Your task to perform on an android device: toggle priority inbox in the gmail app Image 0: 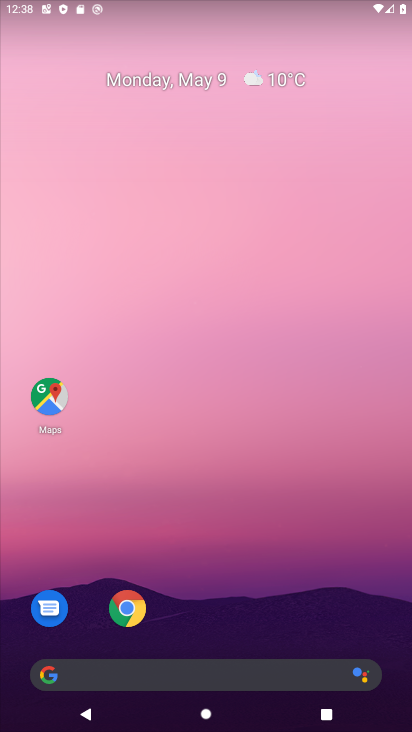
Step 0: drag from (236, 387) to (227, 148)
Your task to perform on an android device: toggle priority inbox in the gmail app Image 1: 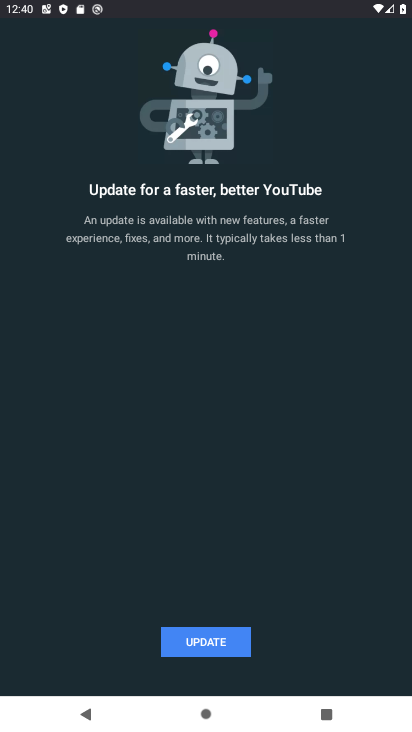
Step 1: press back button
Your task to perform on an android device: toggle priority inbox in the gmail app Image 2: 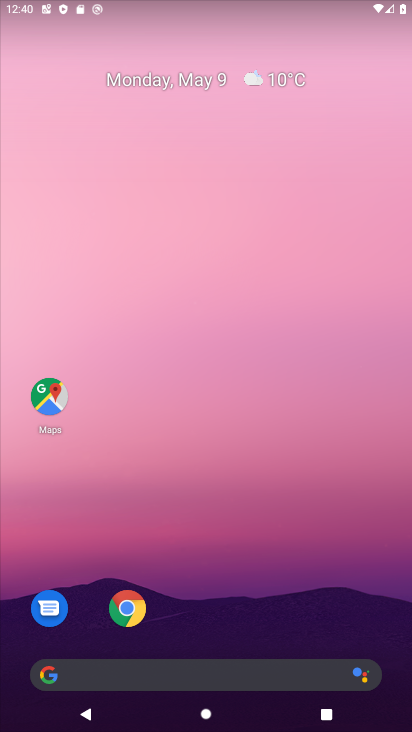
Step 2: drag from (294, 607) to (325, 108)
Your task to perform on an android device: toggle priority inbox in the gmail app Image 3: 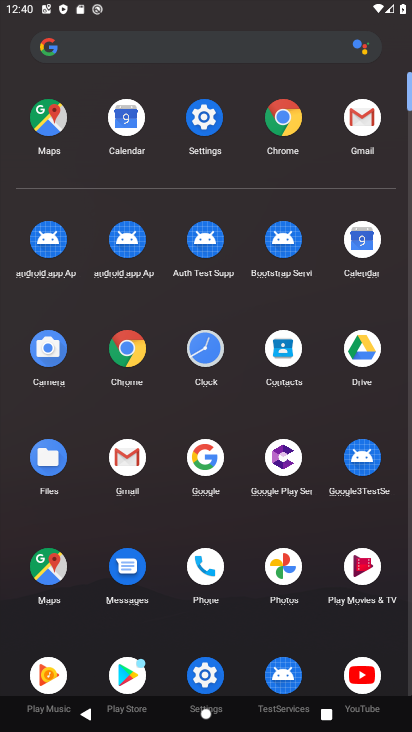
Step 3: click (123, 473)
Your task to perform on an android device: toggle priority inbox in the gmail app Image 4: 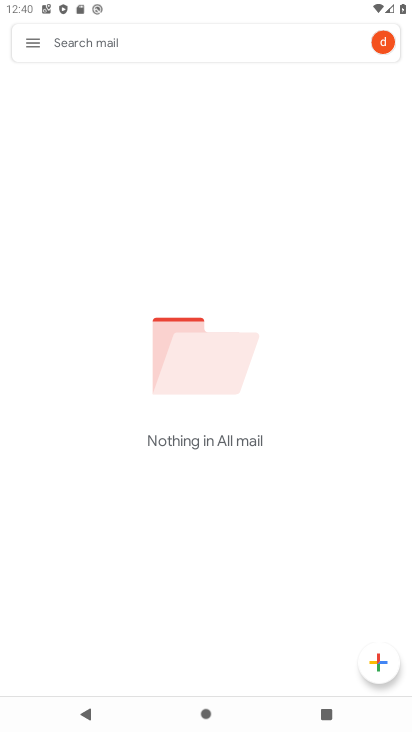
Step 4: click (34, 46)
Your task to perform on an android device: toggle priority inbox in the gmail app Image 5: 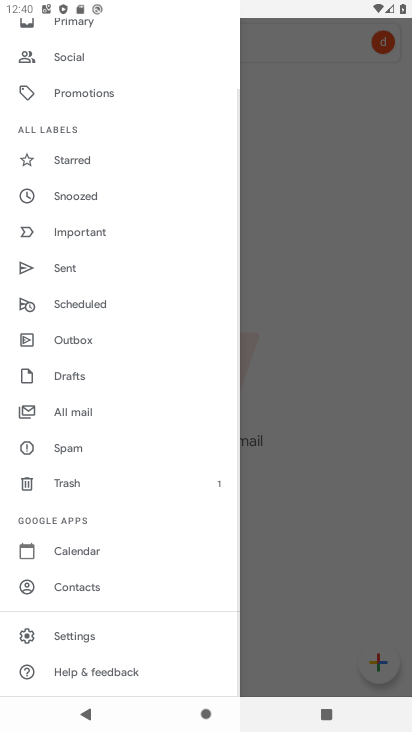
Step 5: click (72, 635)
Your task to perform on an android device: toggle priority inbox in the gmail app Image 6: 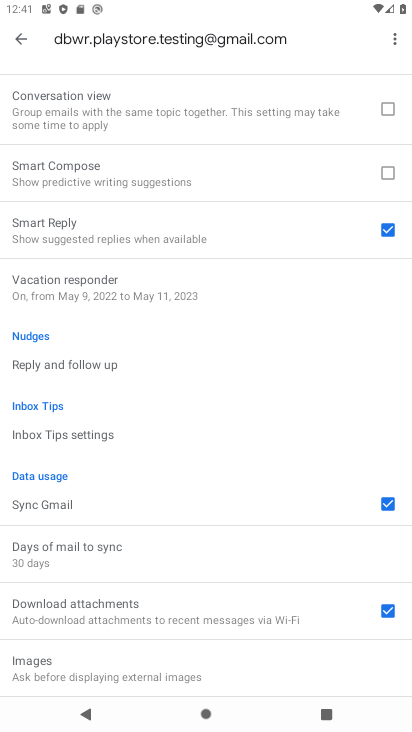
Step 6: click (144, 437)
Your task to perform on an android device: toggle priority inbox in the gmail app Image 7: 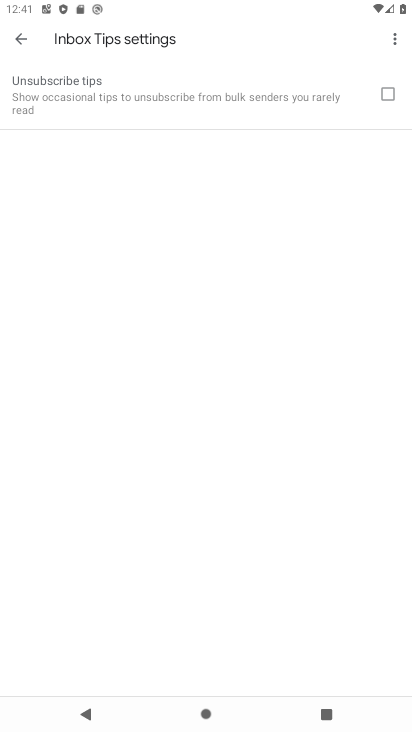
Step 7: click (20, 36)
Your task to perform on an android device: toggle priority inbox in the gmail app Image 8: 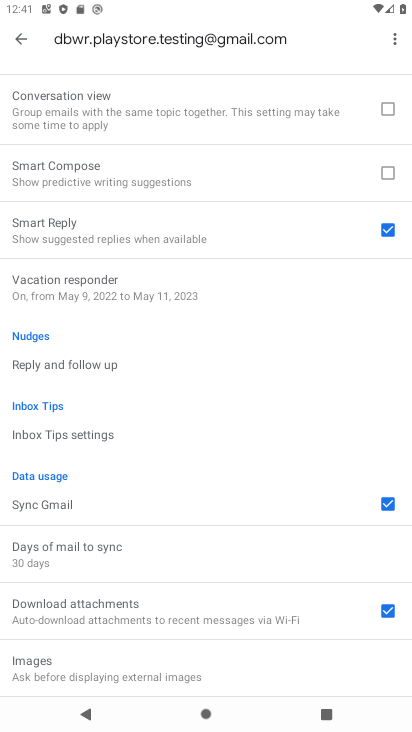
Step 8: drag from (115, 213) to (88, 555)
Your task to perform on an android device: toggle priority inbox in the gmail app Image 9: 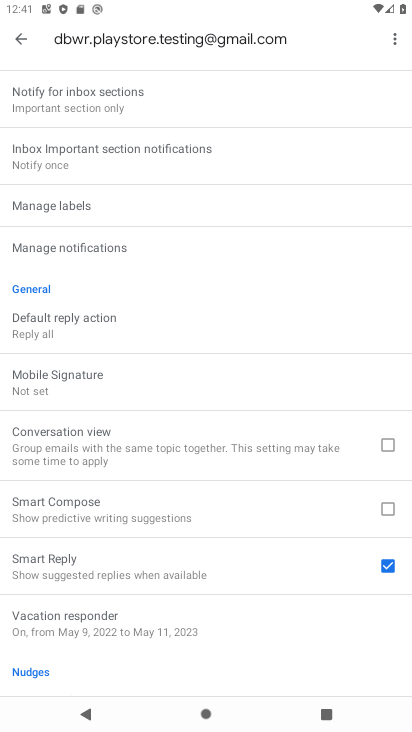
Step 9: drag from (170, 128) to (159, 563)
Your task to perform on an android device: toggle priority inbox in the gmail app Image 10: 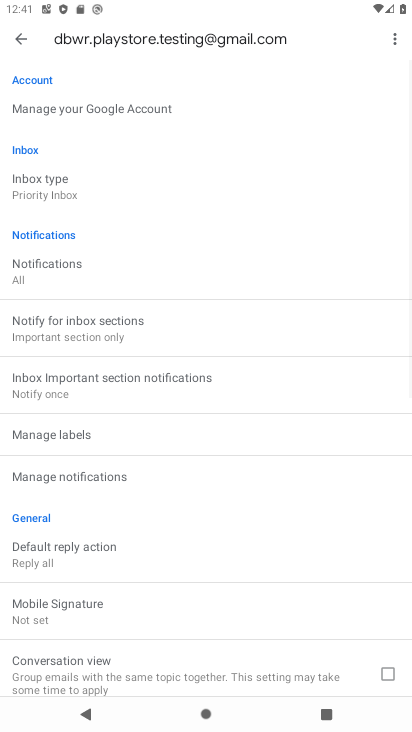
Step 10: click (128, 168)
Your task to perform on an android device: toggle priority inbox in the gmail app Image 11: 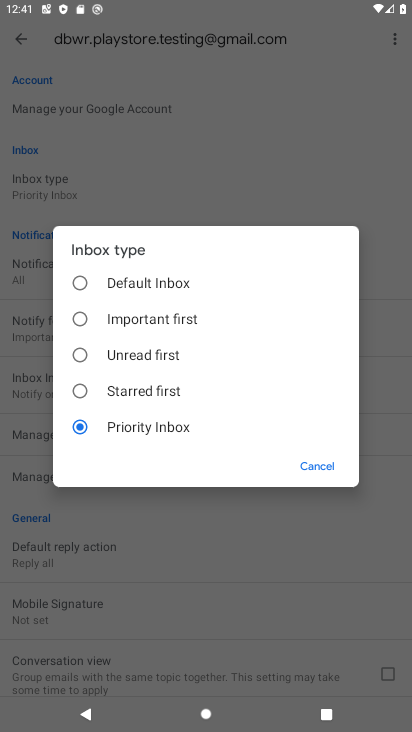
Step 11: task complete